Your task to perform on an android device: check storage Image 0: 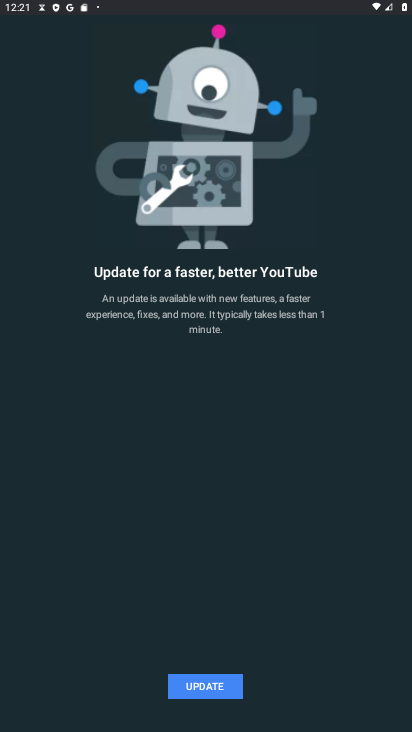
Step 0: press home button
Your task to perform on an android device: check storage Image 1: 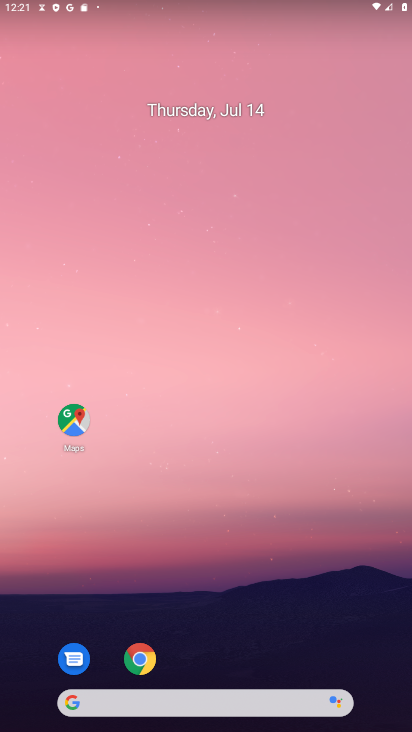
Step 1: drag from (29, 682) to (255, 165)
Your task to perform on an android device: check storage Image 2: 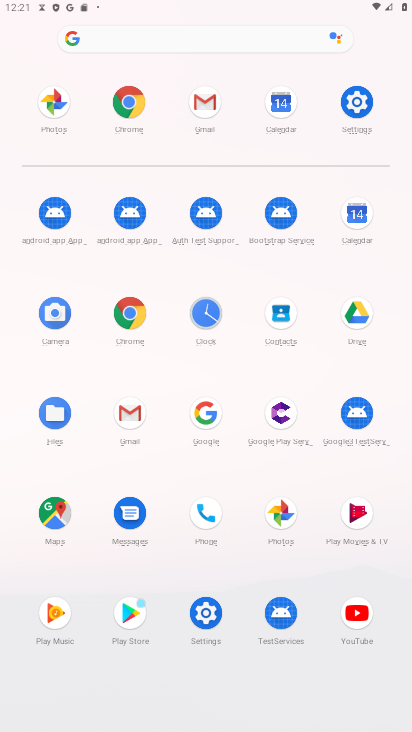
Step 2: click (207, 599)
Your task to perform on an android device: check storage Image 3: 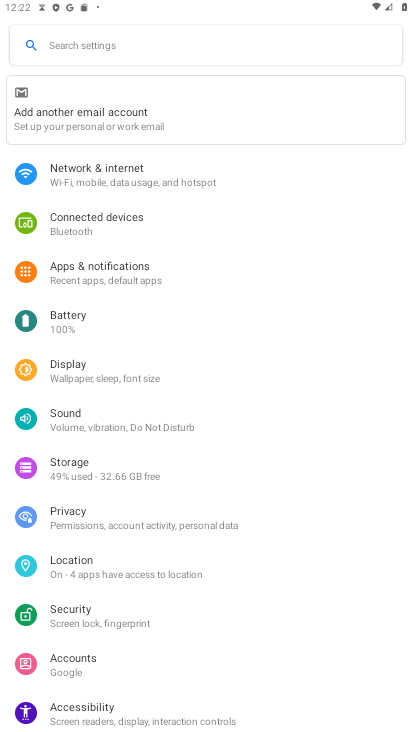
Step 3: click (77, 463)
Your task to perform on an android device: check storage Image 4: 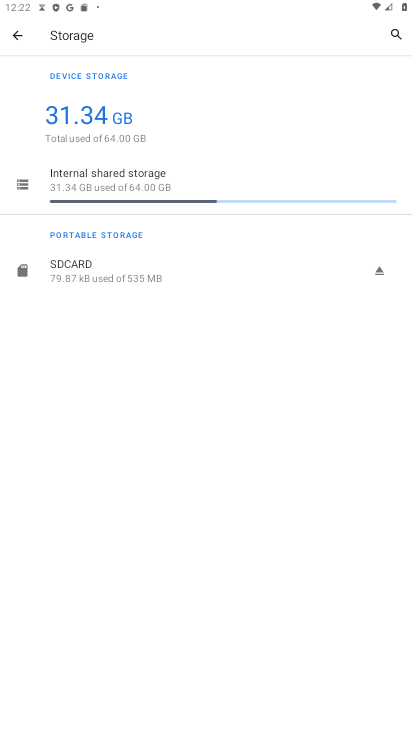
Step 4: task complete